Your task to perform on an android device: check storage Image 0: 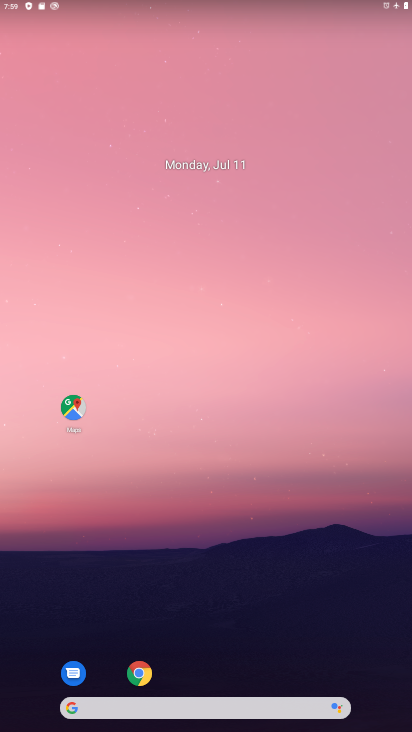
Step 0: drag from (278, 650) to (230, 192)
Your task to perform on an android device: check storage Image 1: 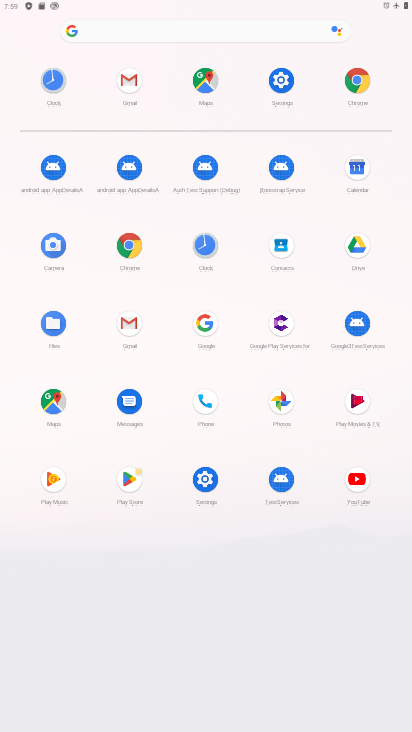
Step 1: click (283, 75)
Your task to perform on an android device: check storage Image 2: 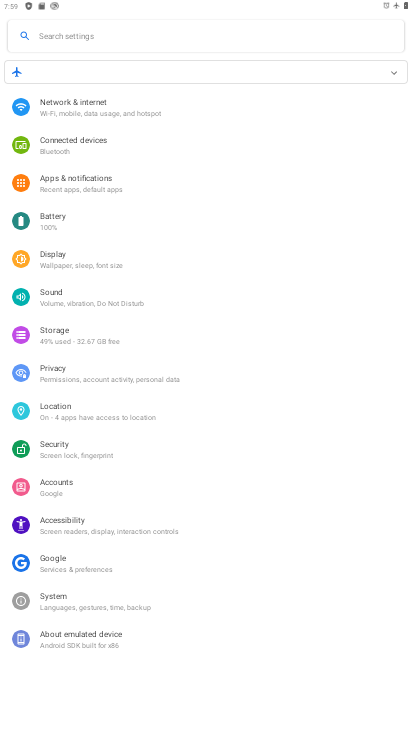
Step 2: click (85, 335)
Your task to perform on an android device: check storage Image 3: 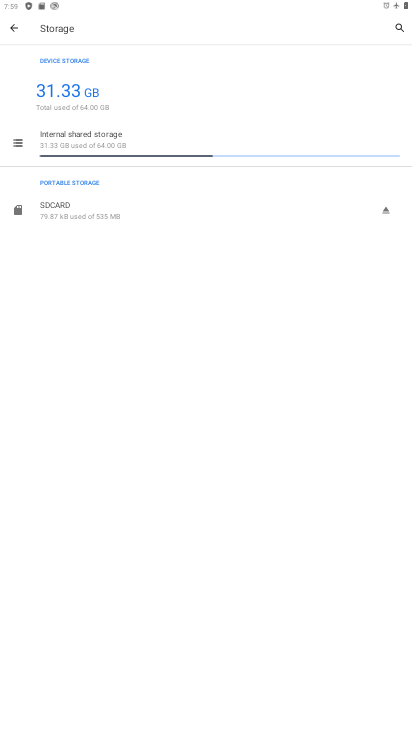
Step 3: task complete